Your task to perform on an android device: What's US dollar exchange rateagainst the Mexican Peso? Image 0: 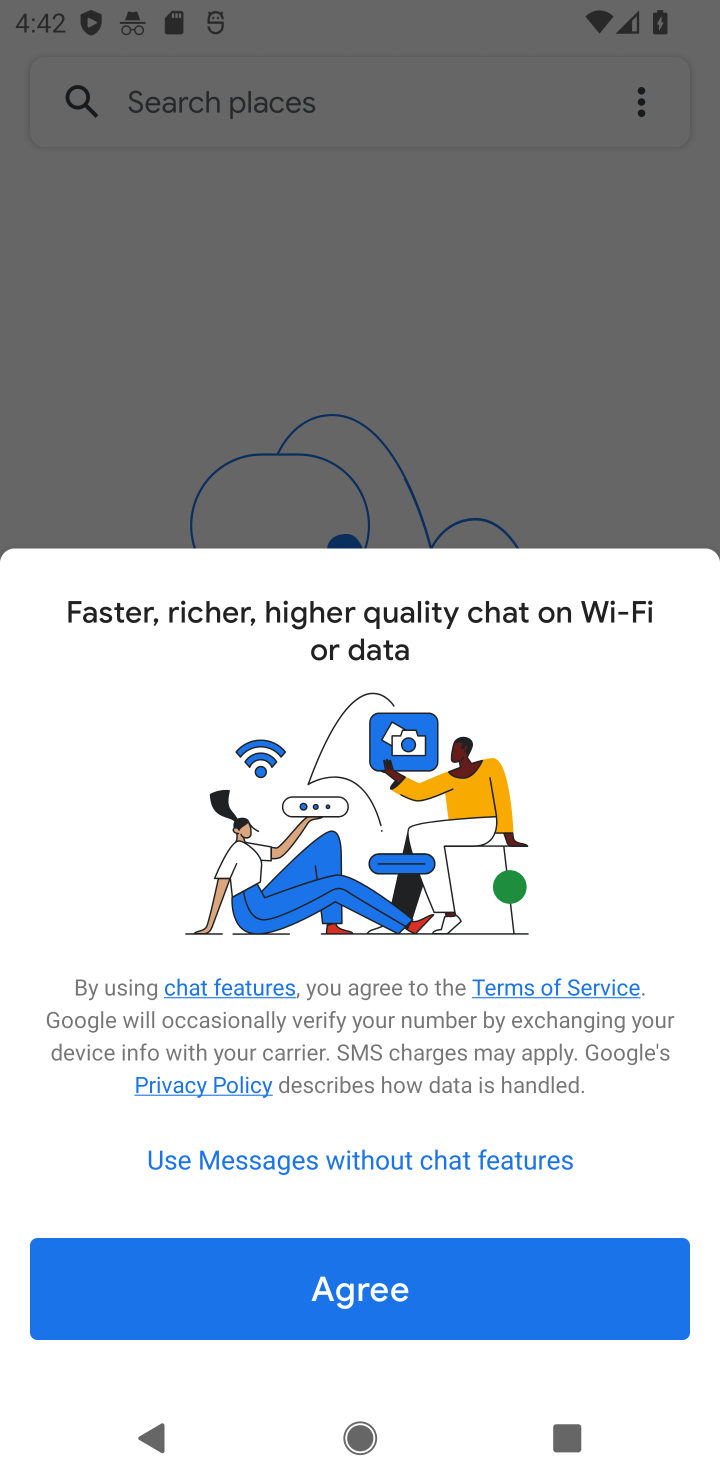
Step 0: press home button
Your task to perform on an android device: What's US dollar exchange rateagainst the Mexican Peso? Image 1: 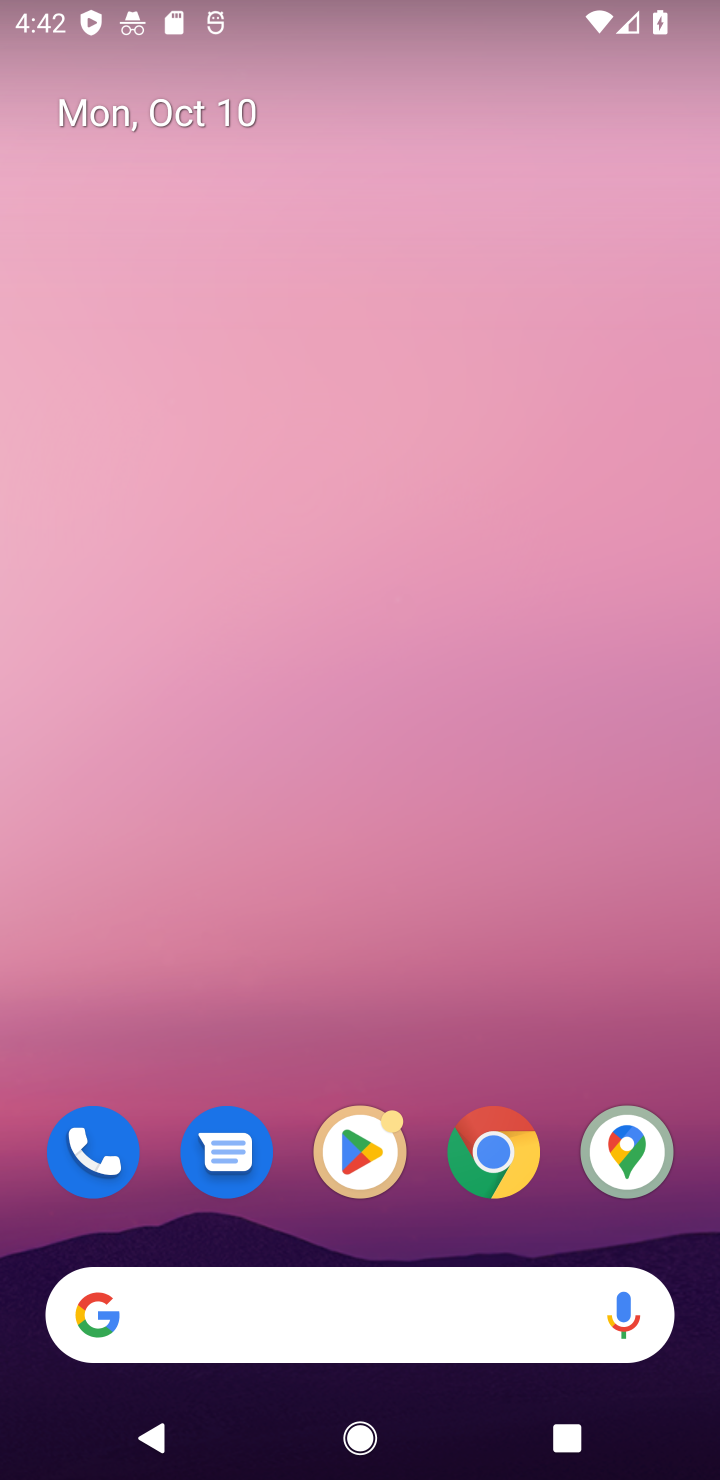
Step 1: click (506, 1154)
Your task to perform on an android device: What's US dollar exchange rateagainst the Mexican Peso? Image 2: 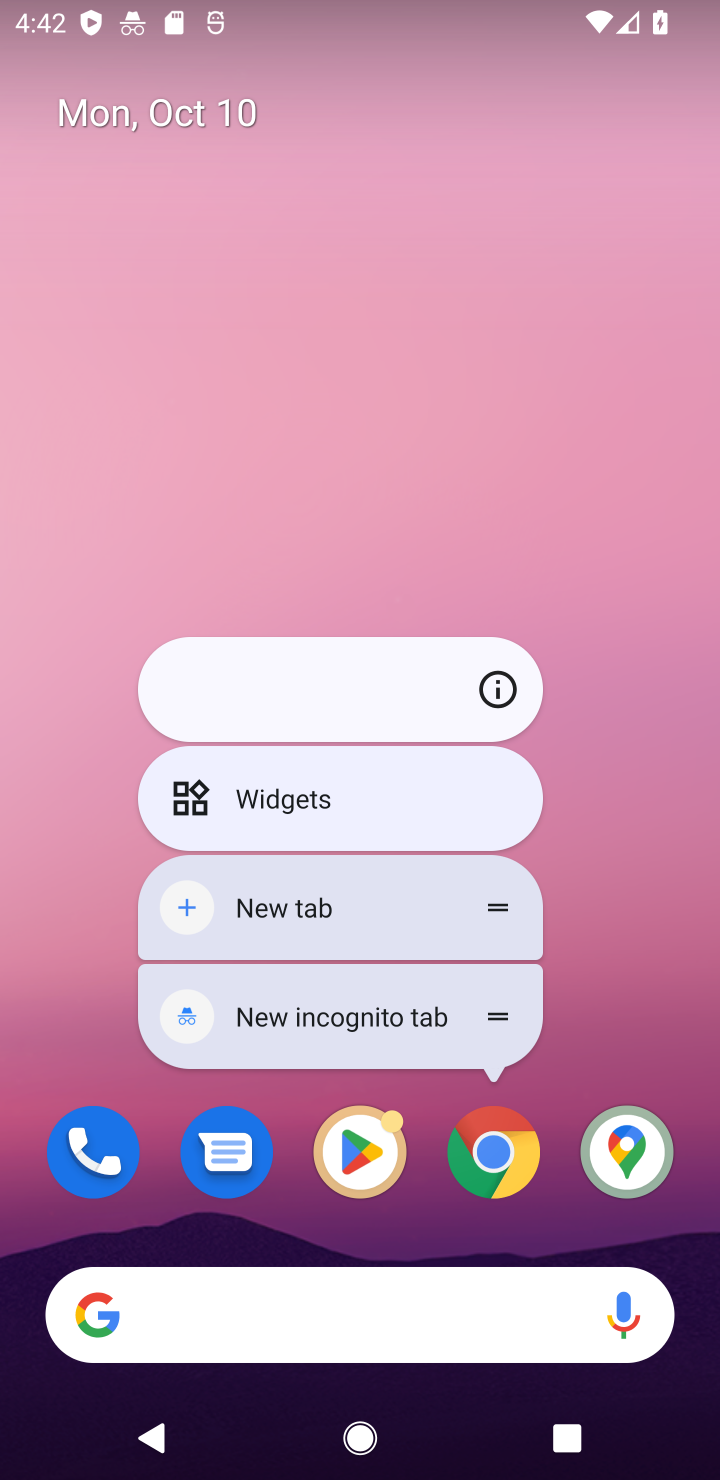
Step 2: click (506, 1154)
Your task to perform on an android device: What's US dollar exchange rateagainst the Mexican Peso? Image 3: 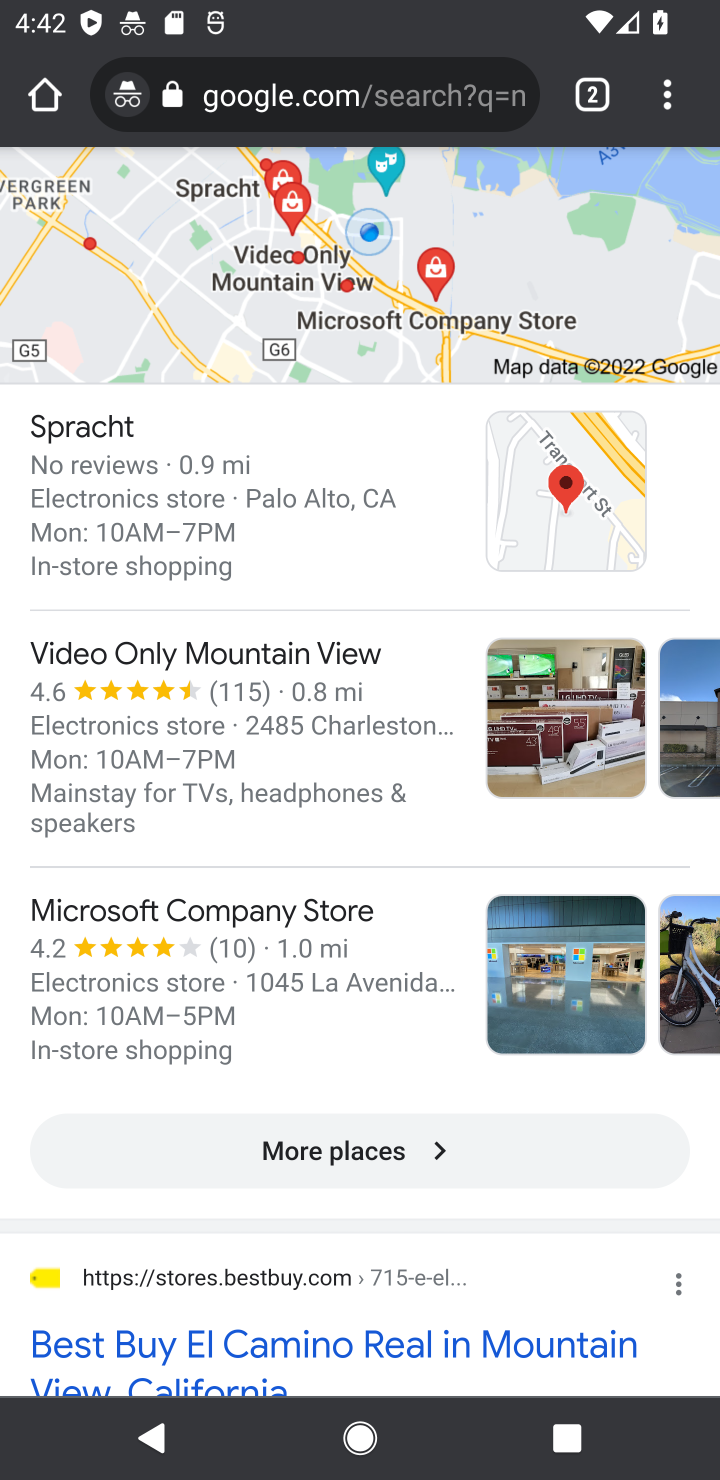
Step 3: click (463, 97)
Your task to perform on an android device: What's US dollar exchange rateagainst the Mexican Peso? Image 4: 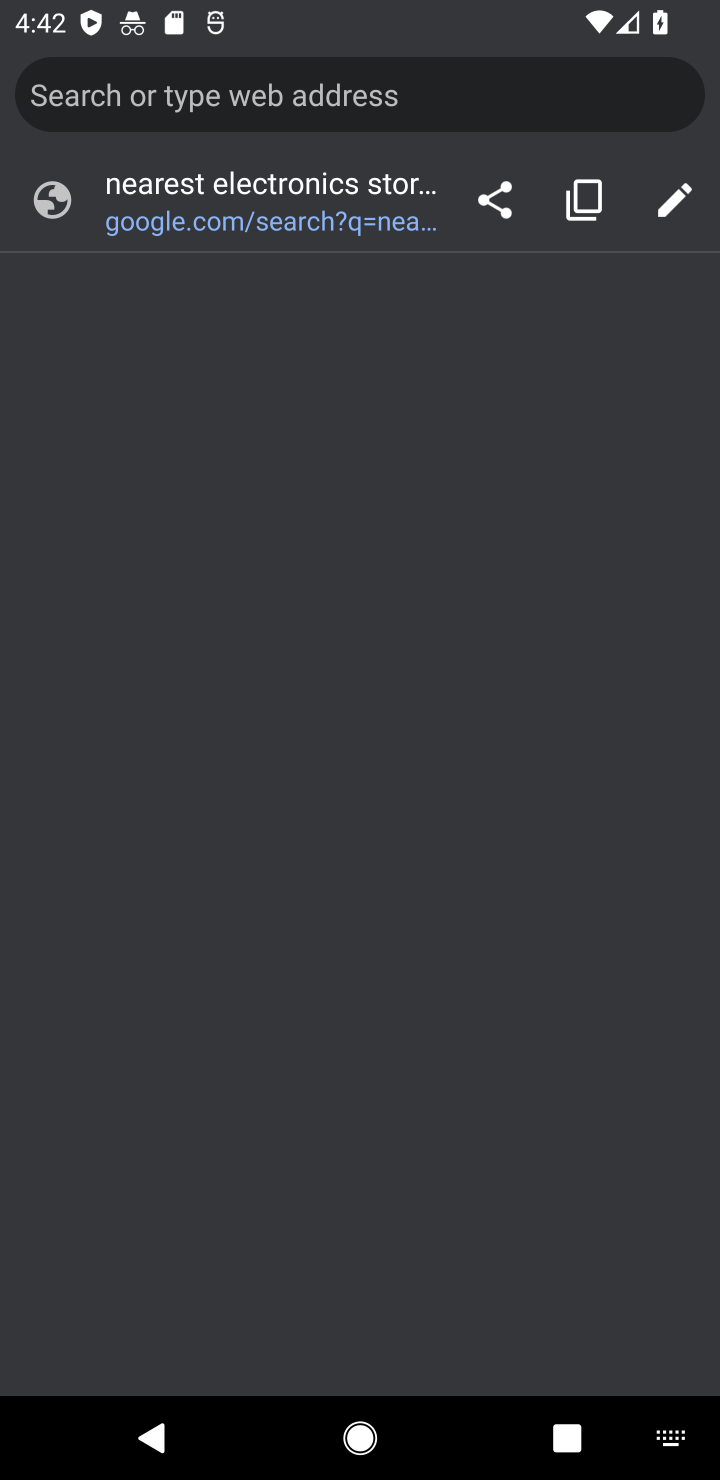
Step 4: type "What's US dollar exchange rateagainst the Mexican Peso?"
Your task to perform on an android device: What's US dollar exchange rateagainst the Mexican Peso? Image 5: 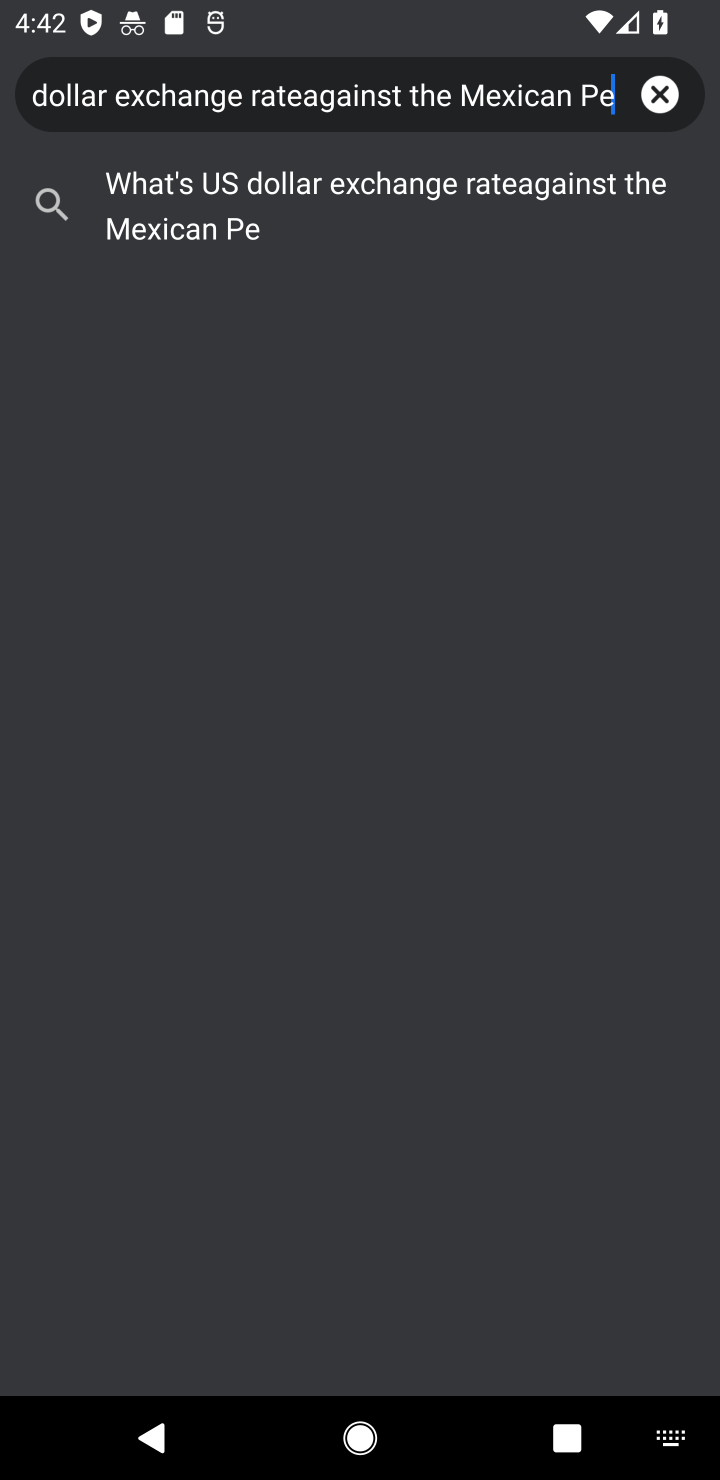
Step 5: click (259, 241)
Your task to perform on an android device: What's US dollar exchange rateagainst the Mexican Peso? Image 6: 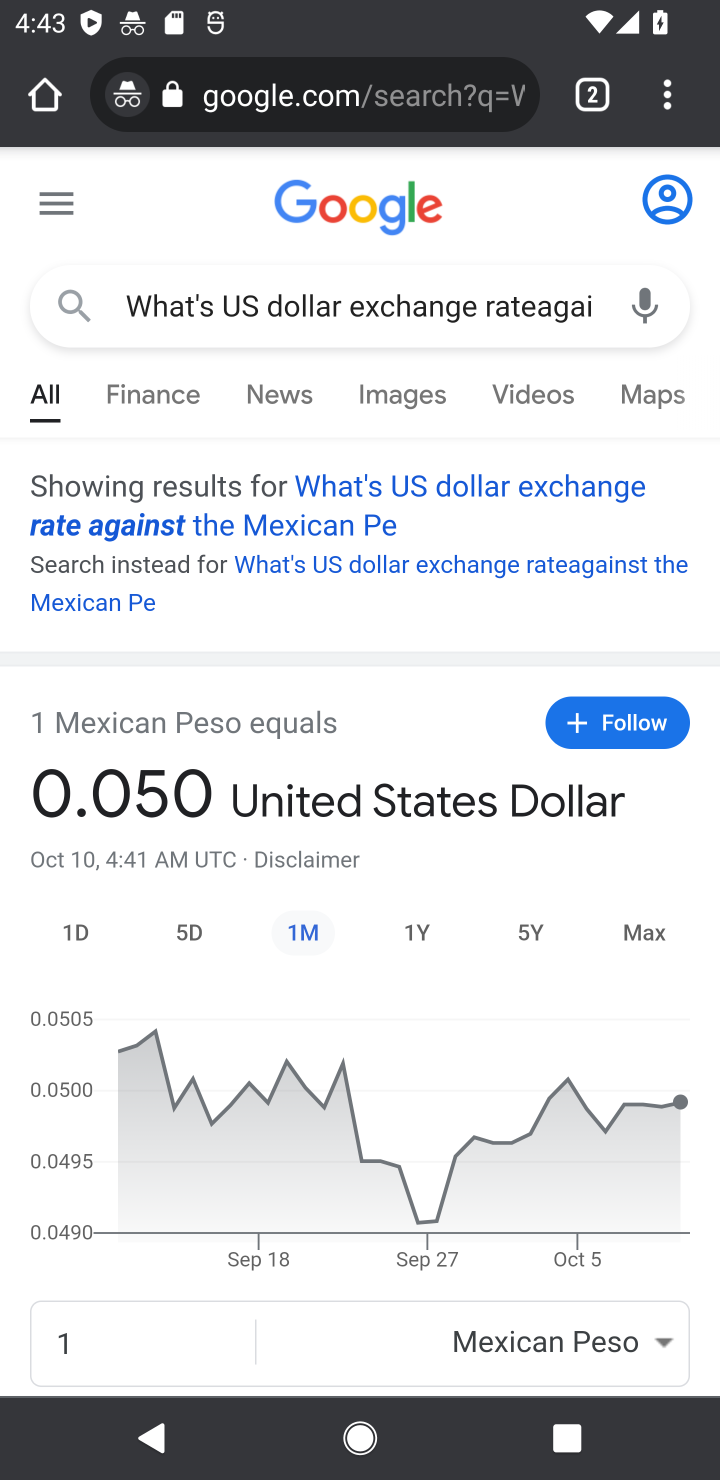
Step 6: task complete